Your task to perform on an android device: What is the news today? Image 0: 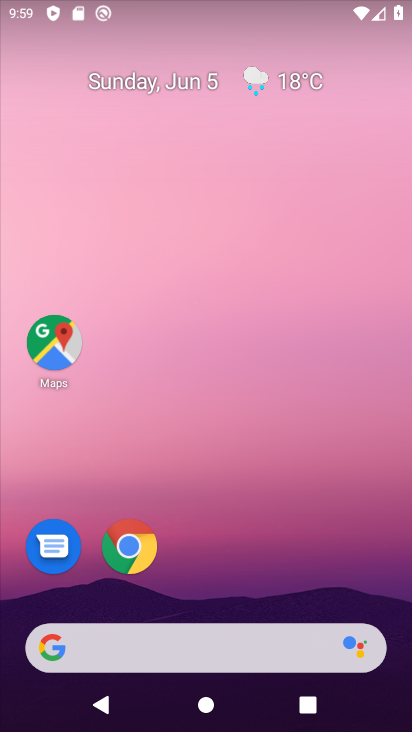
Step 0: click (152, 649)
Your task to perform on an android device: What is the news today? Image 1: 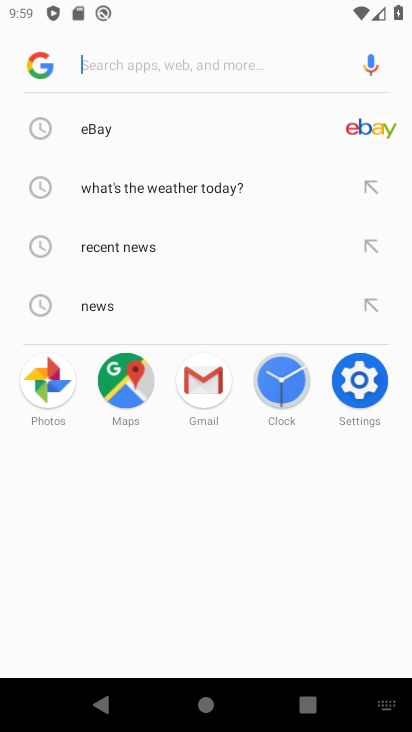
Step 1: click (167, 310)
Your task to perform on an android device: What is the news today? Image 2: 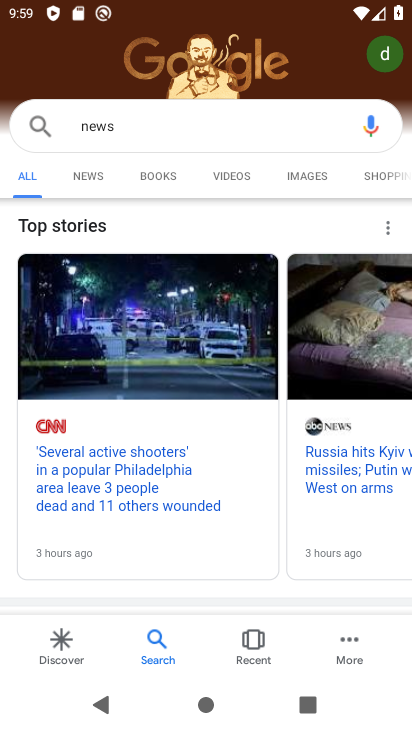
Step 2: task complete